Your task to perform on an android device: turn on airplane mode Image 0: 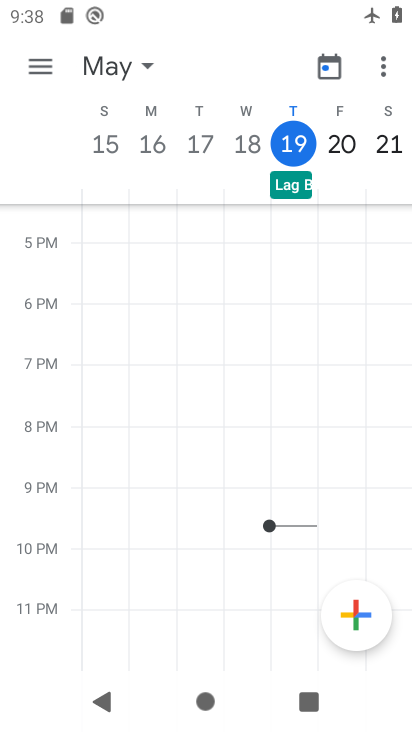
Step 0: press home button
Your task to perform on an android device: turn on airplane mode Image 1: 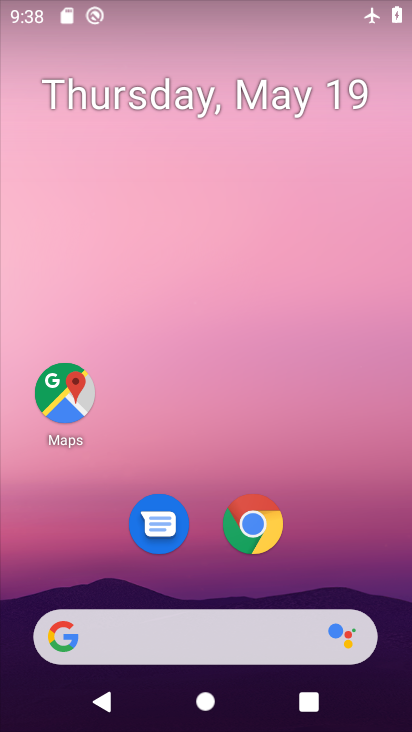
Step 1: drag from (325, 508) to (310, 51)
Your task to perform on an android device: turn on airplane mode Image 2: 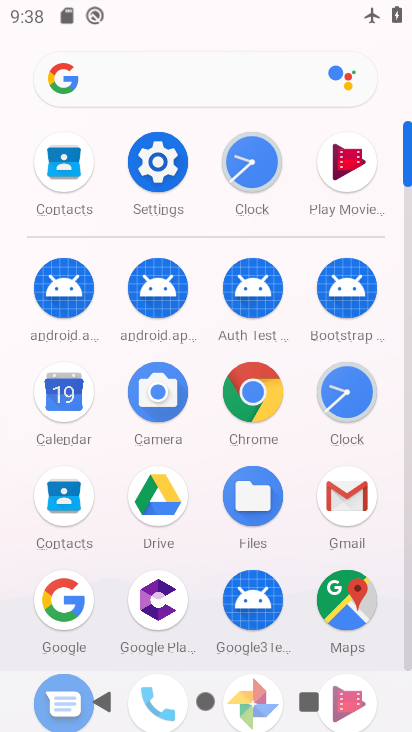
Step 2: click (156, 177)
Your task to perform on an android device: turn on airplane mode Image 3: 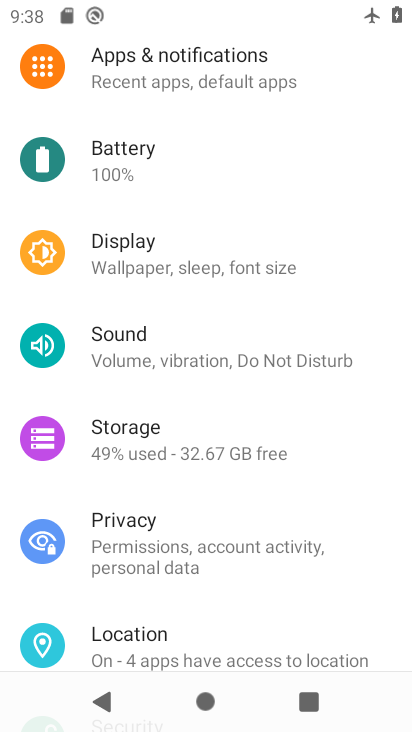
Step 3: drag from (213, 210) to (241, 645)
Your task to perform on an android device: turn on airplane mode Image 4: 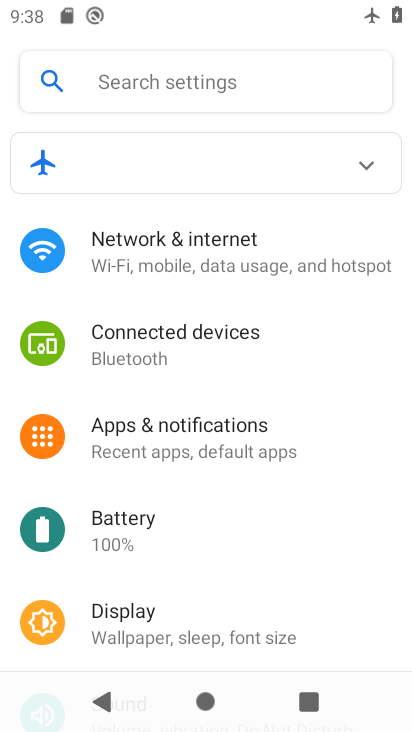
Step 4: click (245, 252)
Your task to perform on an android device: turn on airplane mode Image 5: 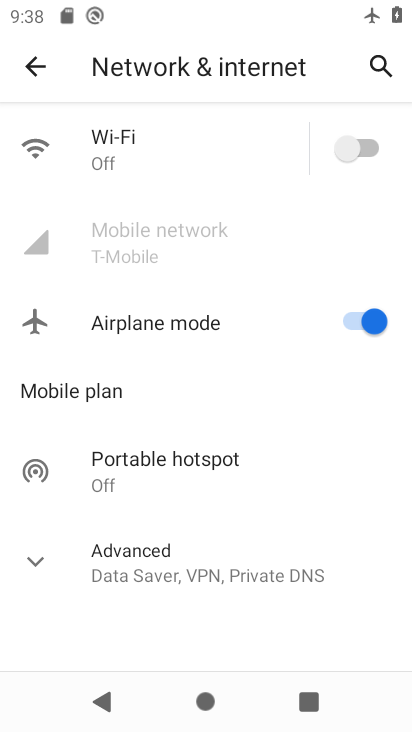
Step 5: task complete